Your task to perform on an android device: Open Reddit.com Image 0: 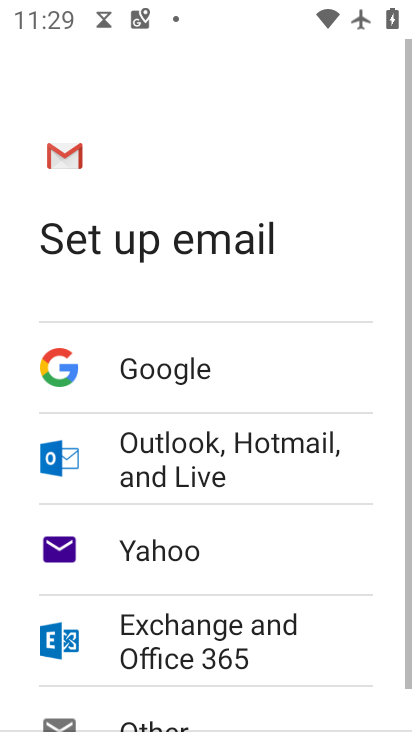
Step 0: press home button
Your task to perform on an android device: Open Reddit.com Image 1: 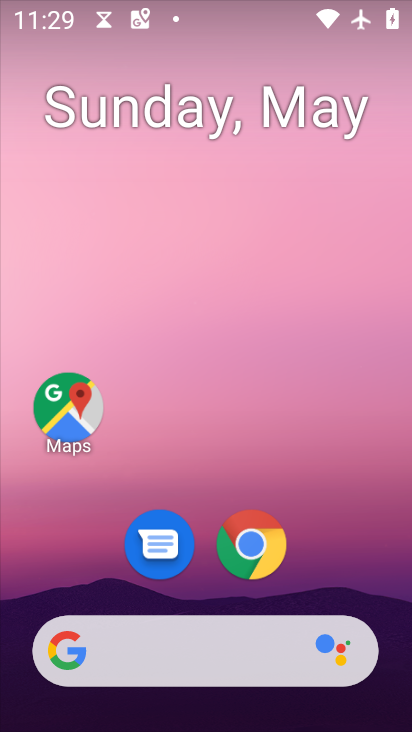
Step 1: click (251, 526)
Your task to perform on an android device: Open Reddit.com Image 2: 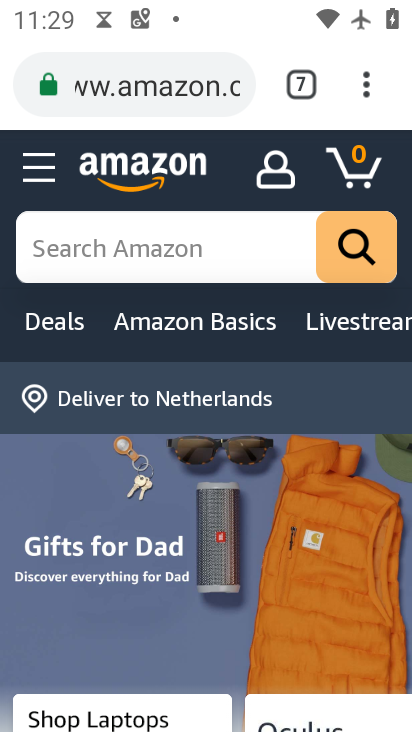
Step 2: click (302, 86)
Your task to perform on an android device: Open Reddit.com Image 3: 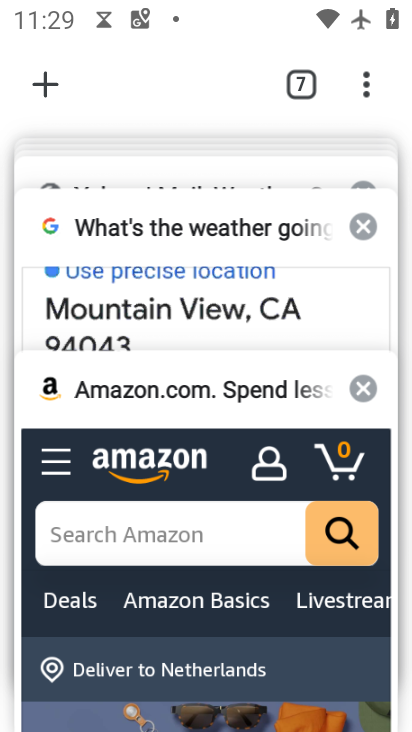
Step 3: drag from (223, 288) to (175, 689)
Your task to perform on an android device: Open Reddit.com Image 4: 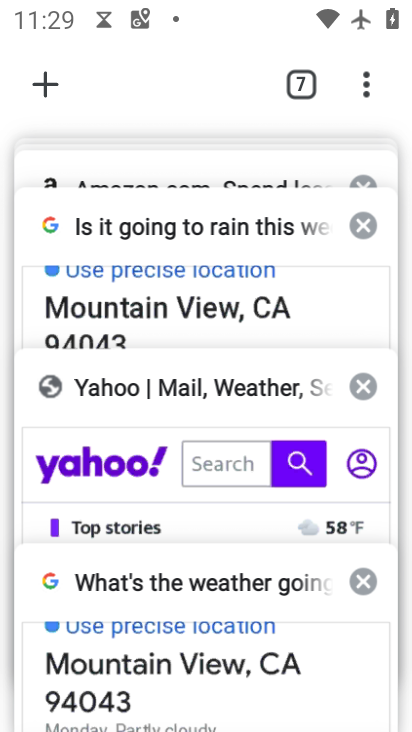
Step 4: drag from (207, 260) to (211, 650)
Your task to perform on an android device: Open Reddit.com Image 5: 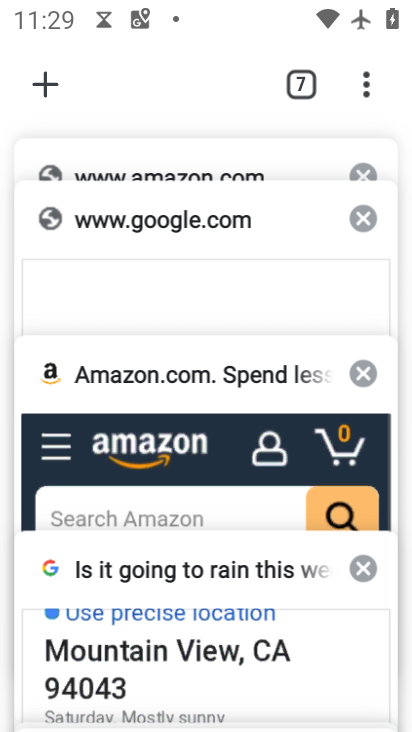
Step 5: drag from (211, 227) to (210, 672)
Your task to perform on an android device: Open Reddit.com Image 6: 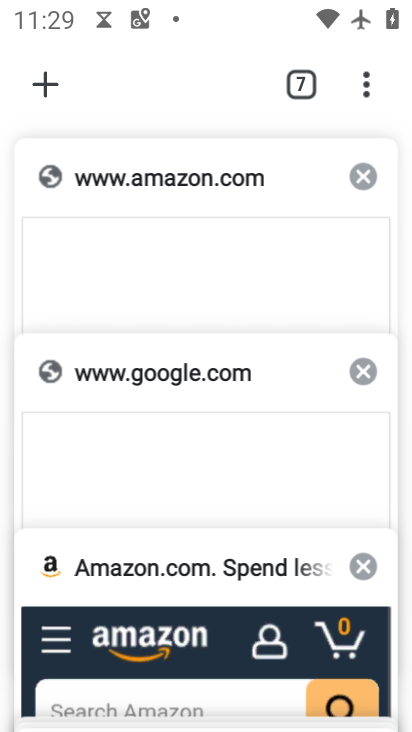
Step 6: drag from (215, 191) to (204, 561)
Your task to perform on an android device: Open Reddit.com Image 7: 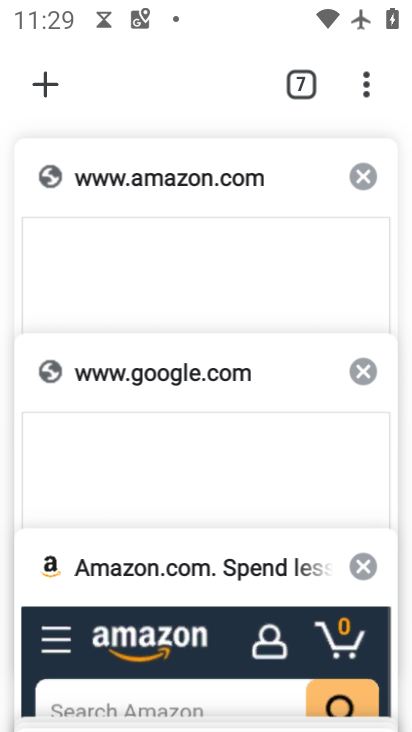
Step 7: click (46, 81)
Your task to perform on an android device: Open Reddit.com Image 8: 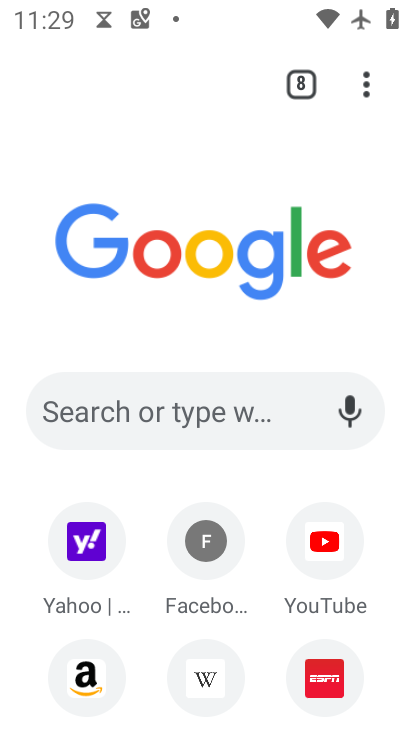
Step 8: click (226, 413)
Your task to perform on an android device: Open Reddit.com Image 9: 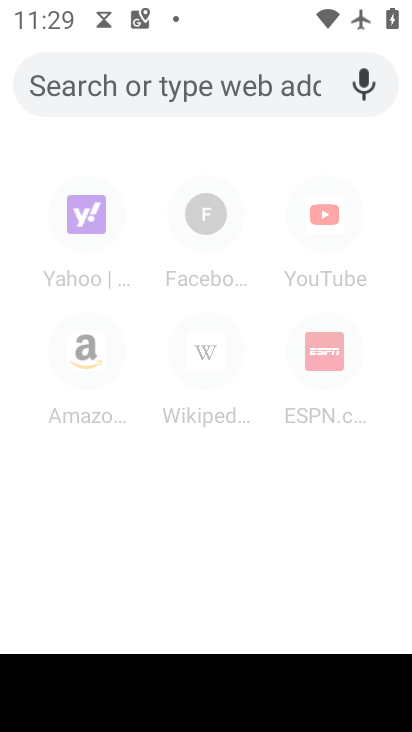
Step 9: type "Reddit.com"
Your task to perform on an android device: Open Reddit.com Image 10: 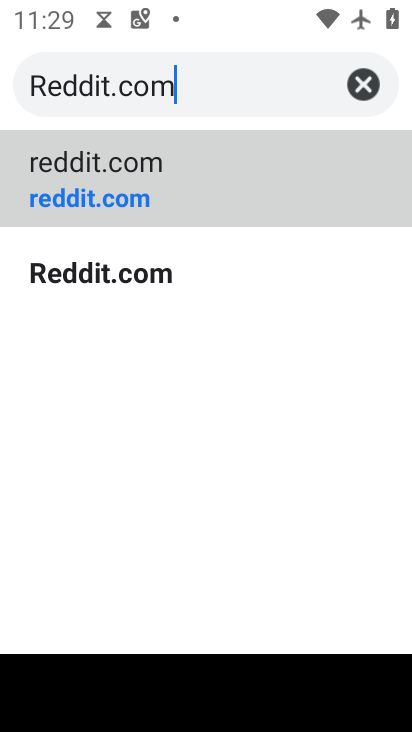
Step 10: click (147, 187)
Your task to perform on an android device: Open Reddit.com Image 11: 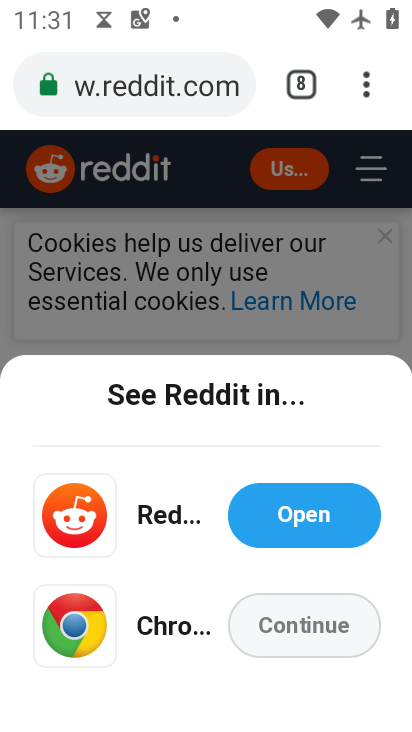
Step 11: task complete